Your task to perform on an android device: set an alarm Image 0: 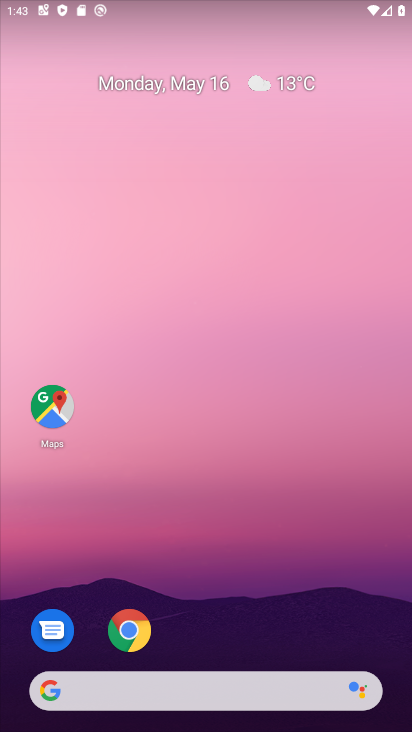
Step 0: drag from (202, 475) to (174, 9)
Your task to perform on an android device: set an alarm Image 1: 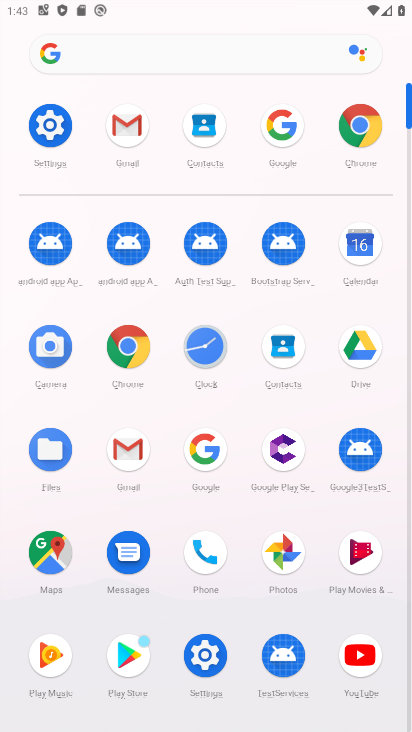
Step 1: click (197, 348)
Your task to perform on an android device: set an alarm Image 2: 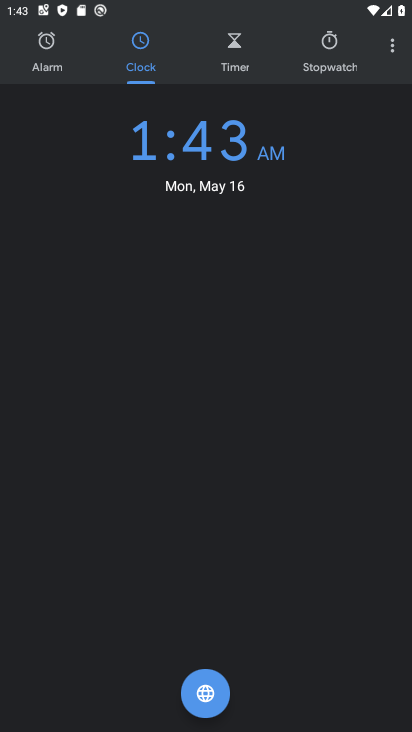
Step 2: click (37, 63)
Your task to perform on an android device: set an alarm Image 3: 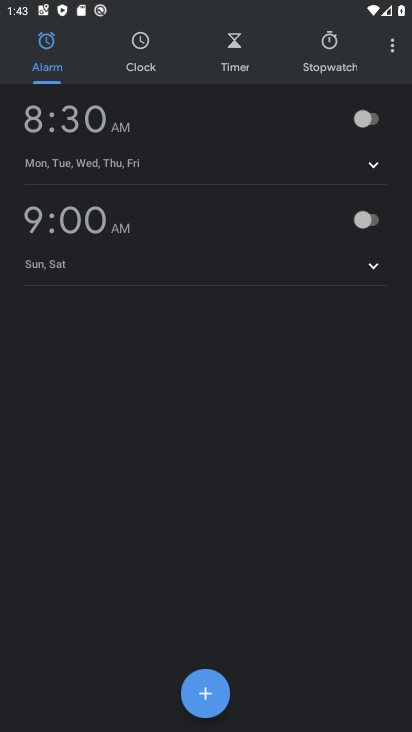
Step 3: click (192, 703)
Your task to perform on an android device: set an alarm Image 4: 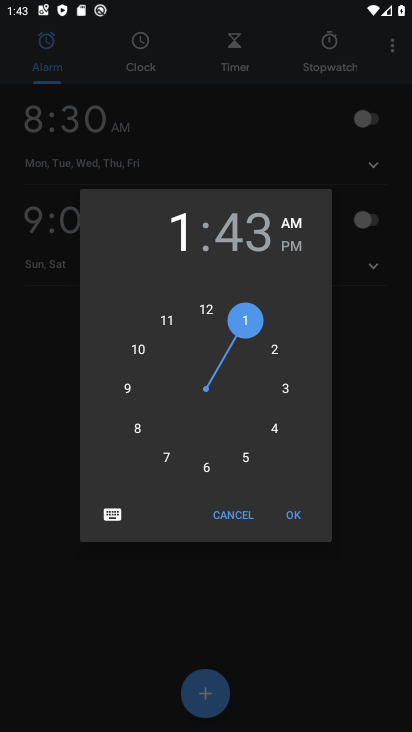
Step 4: click (281, 390)
Your task to perform on an android device: set an alarm Image 5: 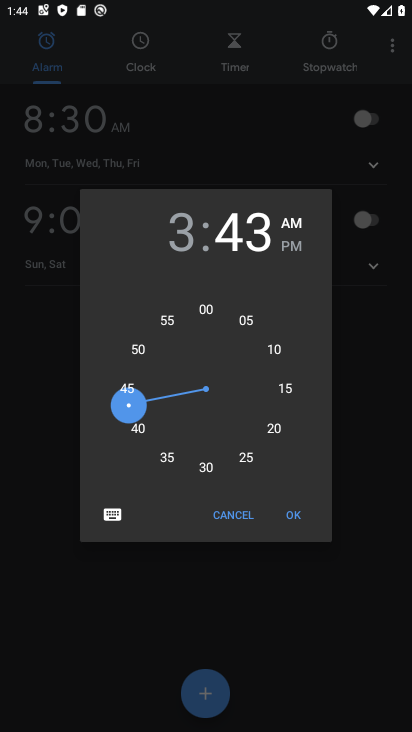
Step 5: click (207, 297)
Your task to perform on an android device: set an alarm Image 6: 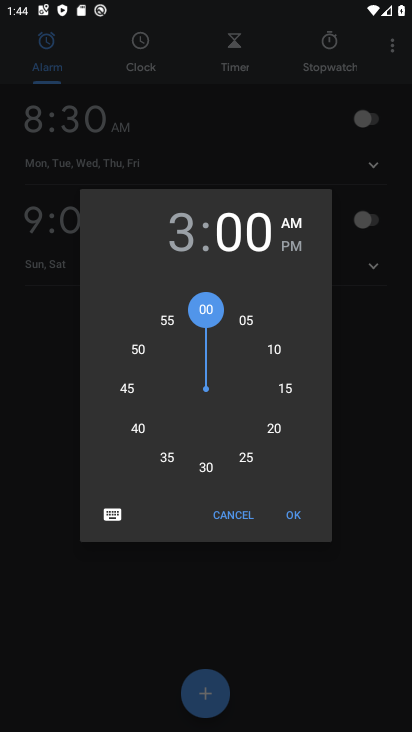
Step 6: click (277, 243)
Your task to perform on an android device: set an alarm Image 7: 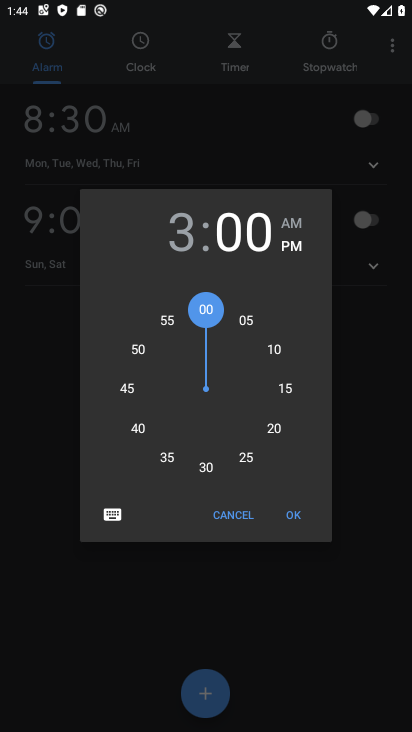
Step 7: click (299, 522)
Your task to perform on an android device: set an alarm Image 8: 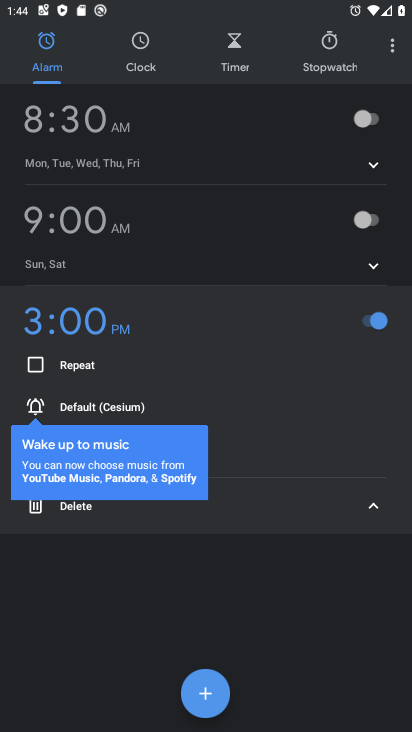
Step 8: click (215, 396)
Your task to perform on an android device: set an alarm Image 9: 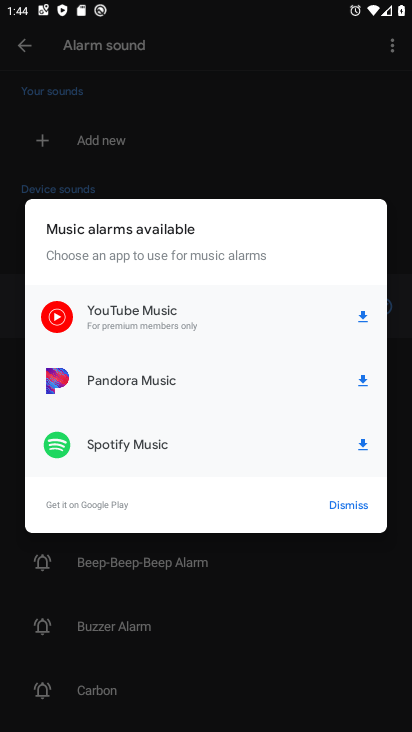
Step 9: task complete